Your task to perform on an android device: Install the CNN app Image 0: 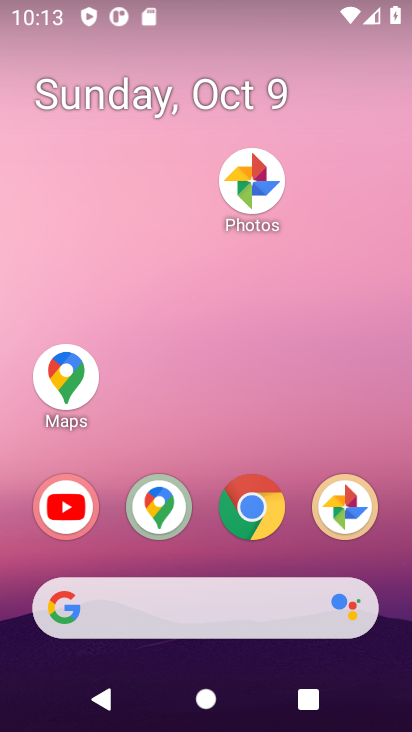
Step 0: drag from (302, 568) to (323, 170)
Your task to perform on an android device: Install the CNN app Image 1: 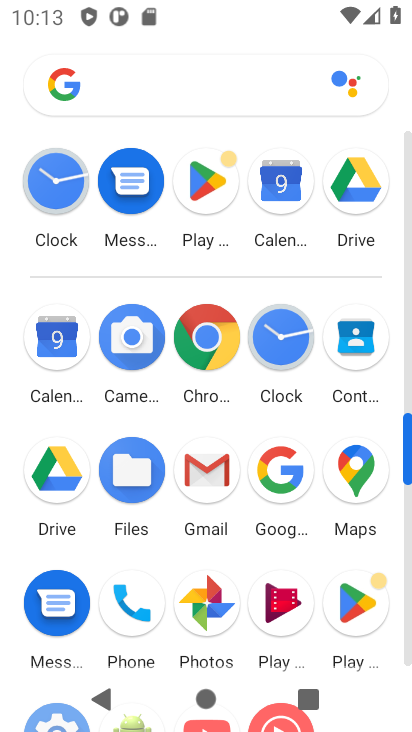
Step 1: click (354, 607)
Your task to perform on an android device: Install the CNN app Image 2: 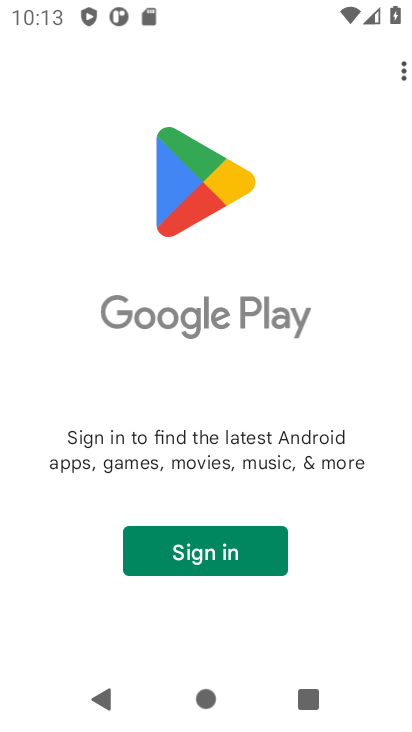
Step 2: click (199, 543)
Your task to perform on an android device: Install the CNN app Image 3: 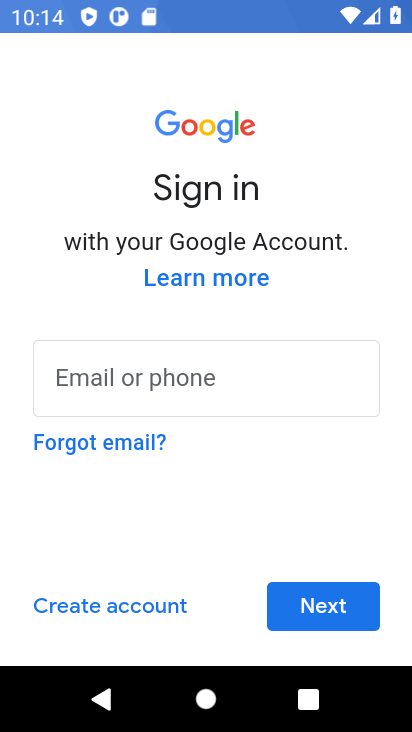
Step 3: task complete